Your task to perform on an android device: empty trash in google photos Image 0: 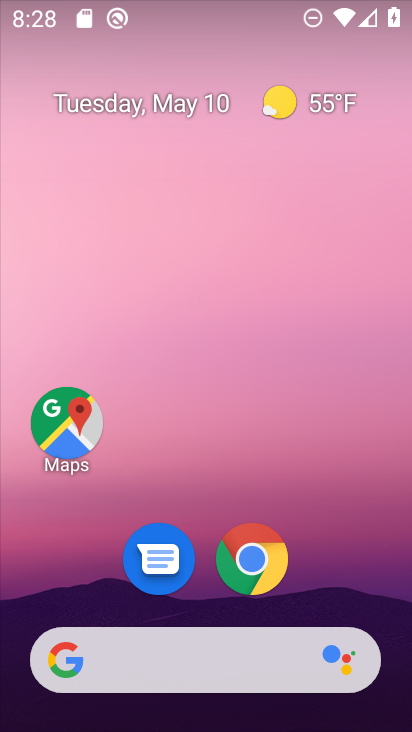
Step 0: drag from (205, 725) to (194, 175)
Your task to perform on an android device: empty trash in google photos Image 1: 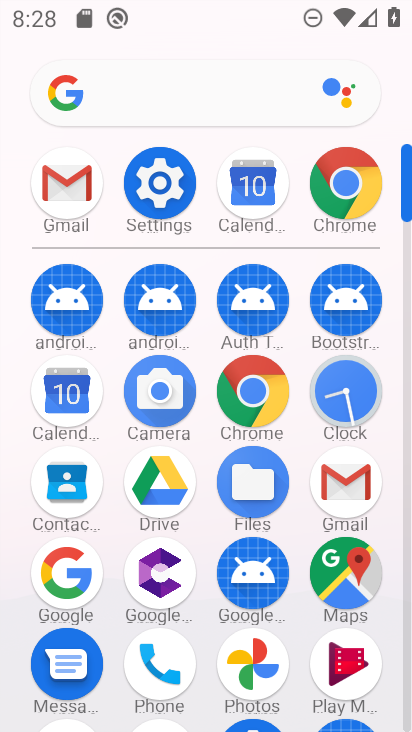
Step 1: click (264, 643)
Your task to perform on an android device: empty trash in google photos Image 2: 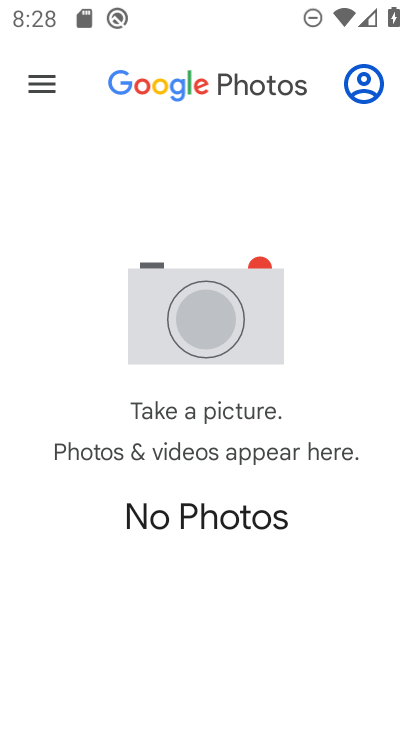
Step 2: task complete